Your task to perform on an android device: Search for seafood restaurants on Google Maps Image 0: 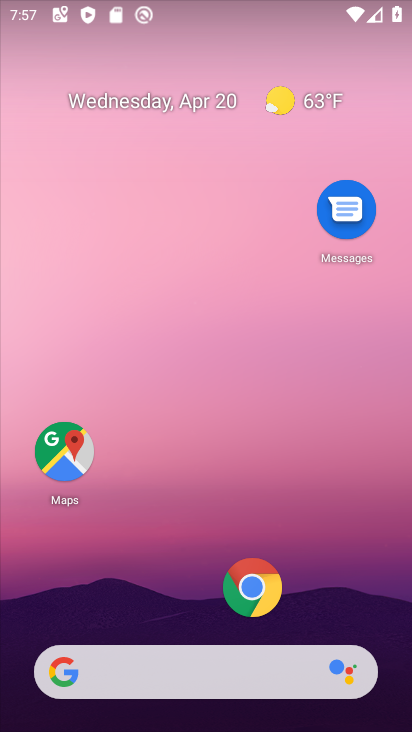
Step 0: drag from (171, 674) to (246, 78)
Your task to perform on an android device: Search for seafood restaurants on Google Maps Image 1: 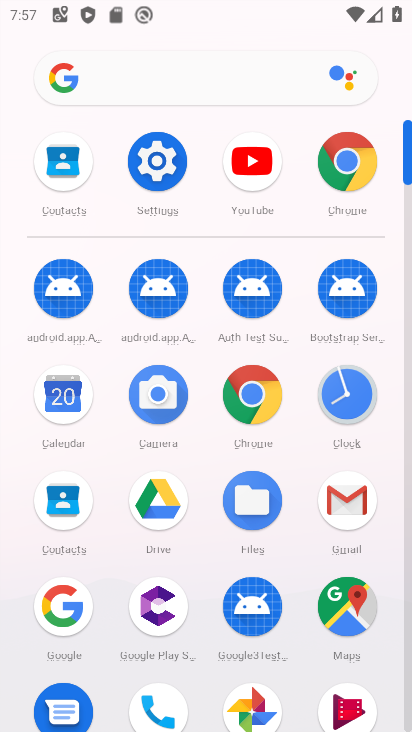
Step 1: click (347, 614)
Your task to perform on an android device: Search for seafood restaurants on Google Maps Image 2: 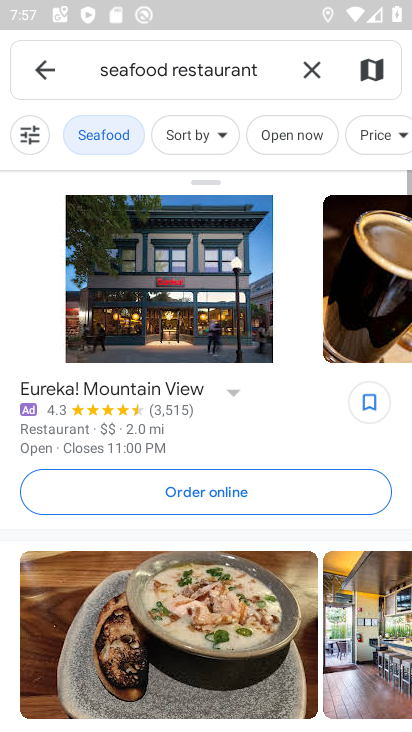
Step 2: task complete